Your task to perform on an android device: Open location settings Image 0: 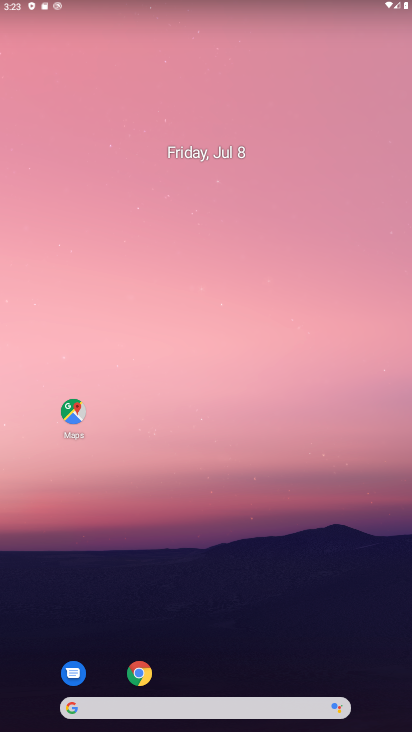
Step 0: drag from (231, 671) to (235, 59)
Your task to perform on an android device: Open location settings Image 1: 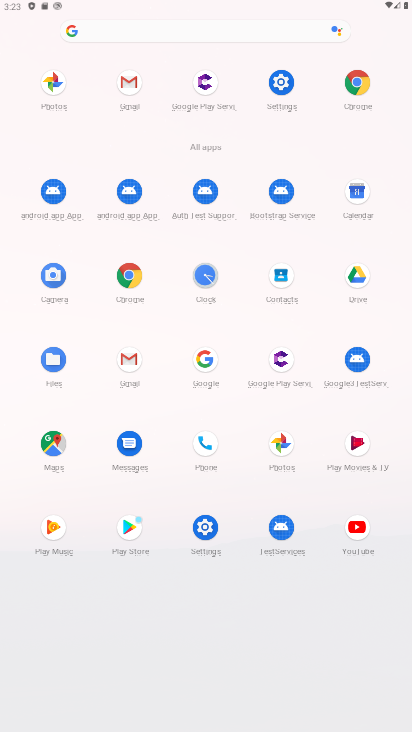
Step 1: click (283, 82)
Your task to perform on an android device: Open location settings Image 2: 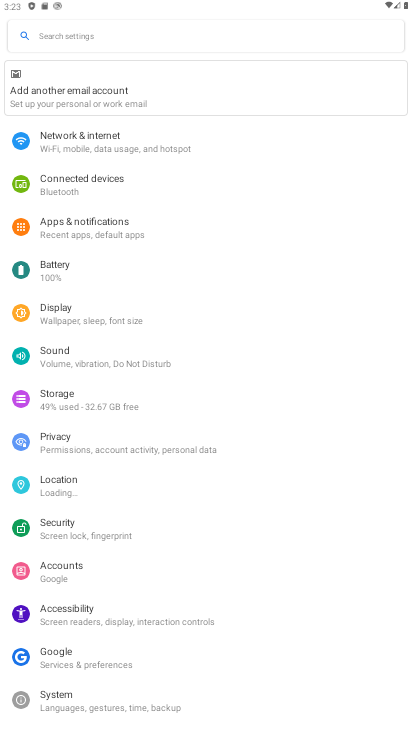
Step 2: click (56, 492)
Your task to perform on an android device: Open location settings Image 3: 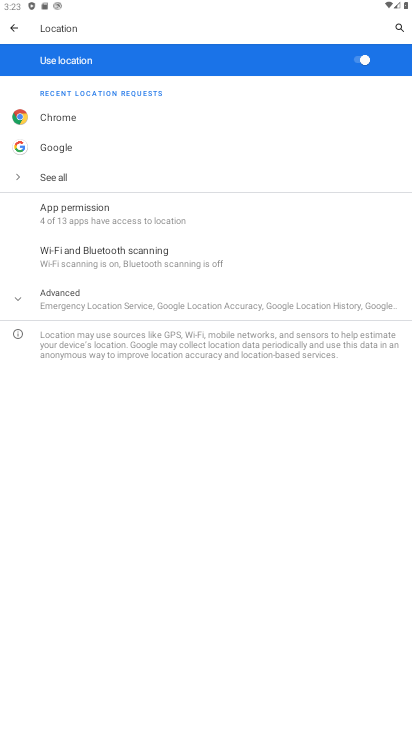
Step 3: task complete